Your task to perform on an android device: make emails show in primary in the gmail app Image 0: 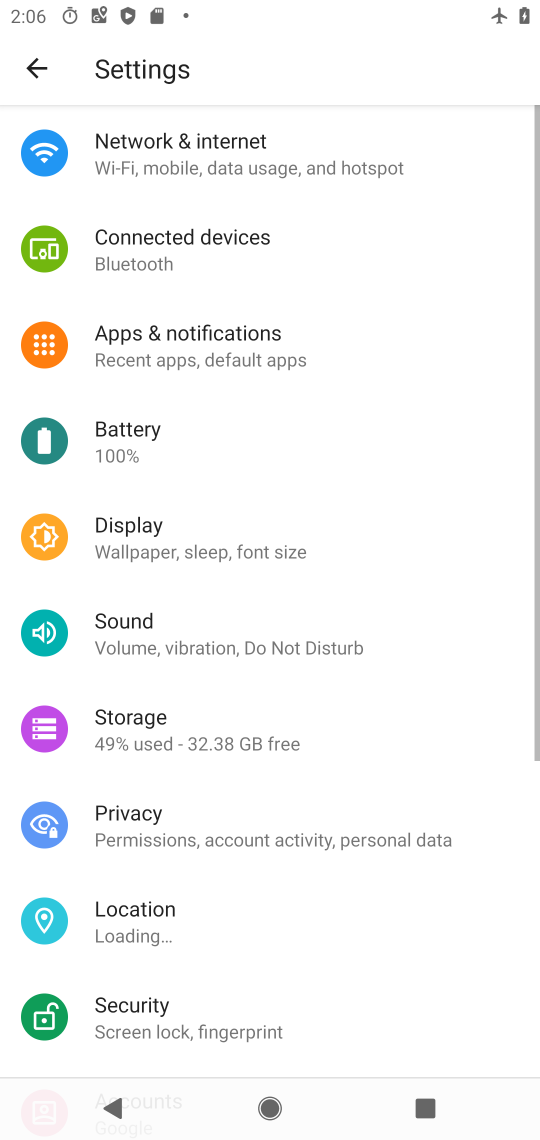
Step 0: press home button
Your task to perform on an android device: make emails show in primary in the gmail app Image 1: 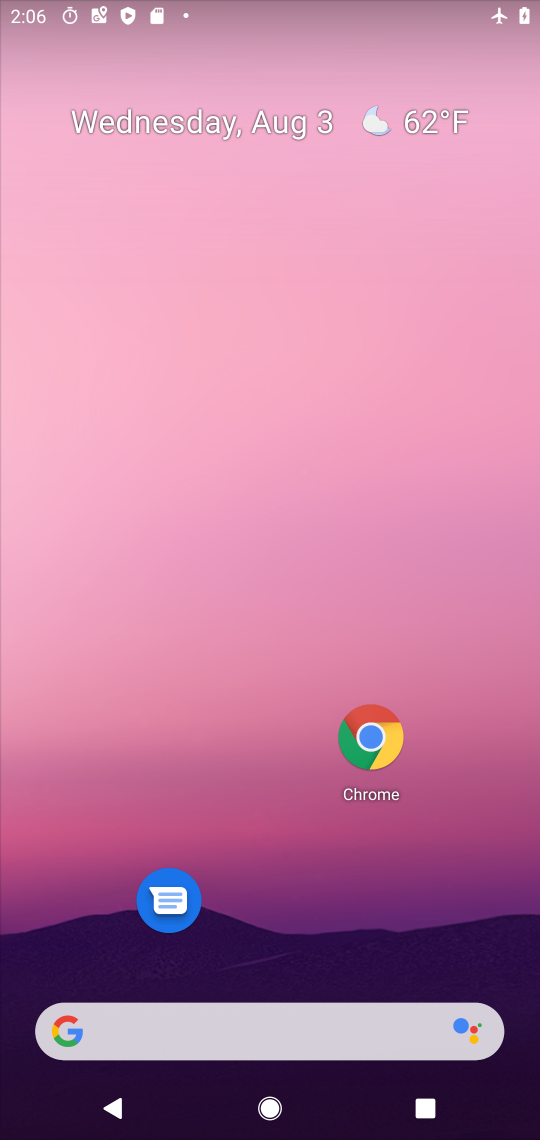
Step 1: drag from (273, 886) to (290, 57)
Your task to perform on an android device: make emails show in primary in the gmail app Image 2: 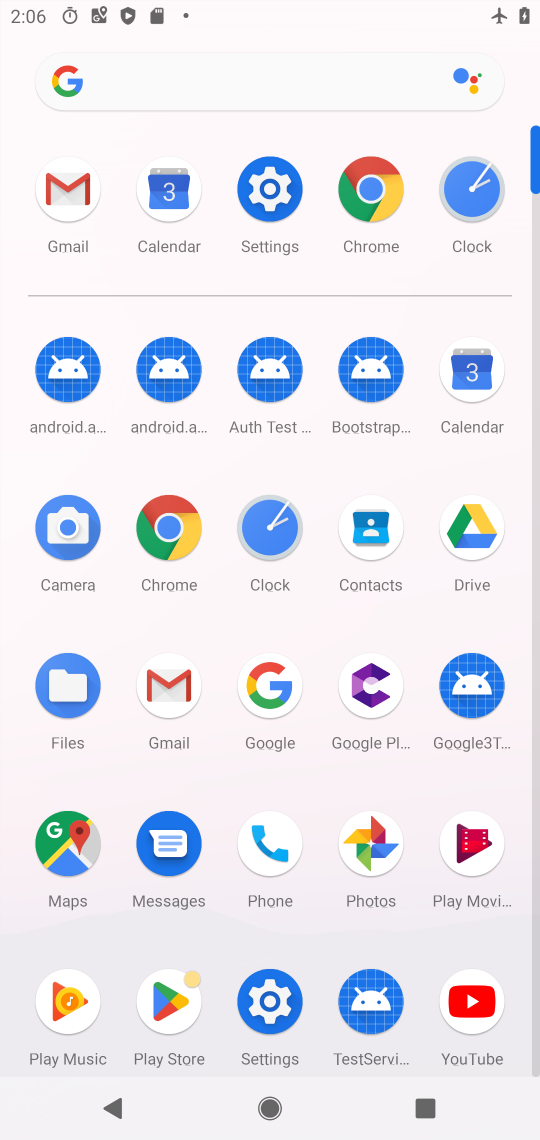
Step 2: click (166, 696)
Your task to perform on an android device: make emails show in primary in the gmail app Image 3: 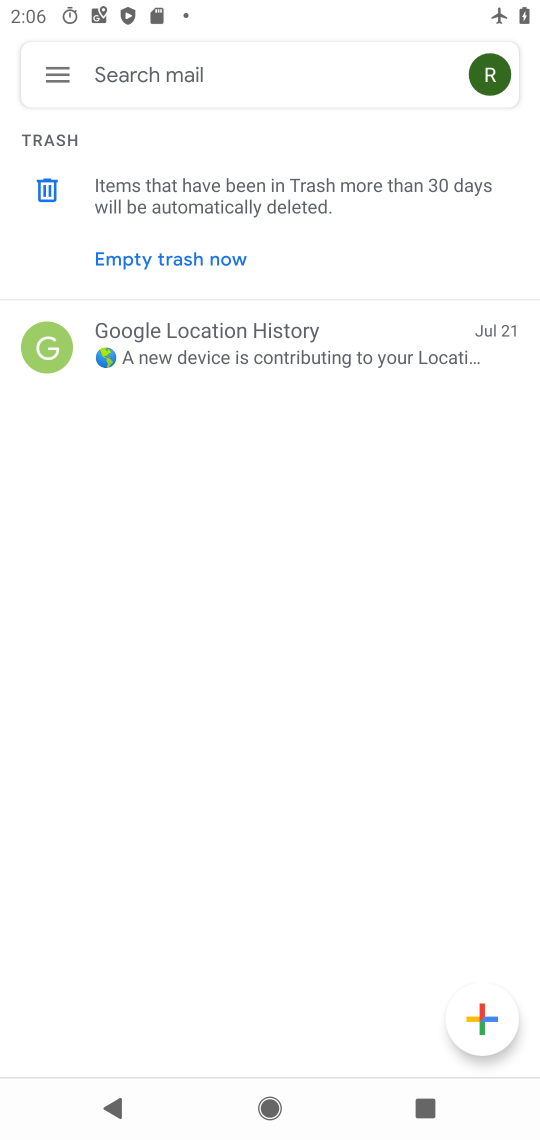
Step 3: click (58, 57)
Your task to perform on an android device: make emails show in primary in the gmail app Image 4: 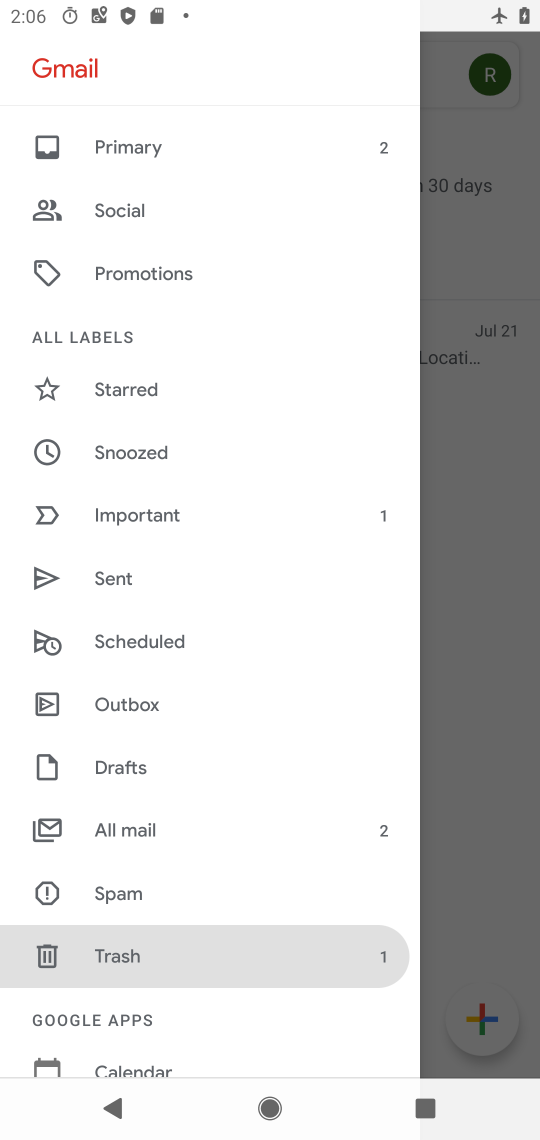
Step 4: drag from (244, 956) to (291, 341)
Your task to perform on an android device: make emails show in primary in the gmail app Image 5: 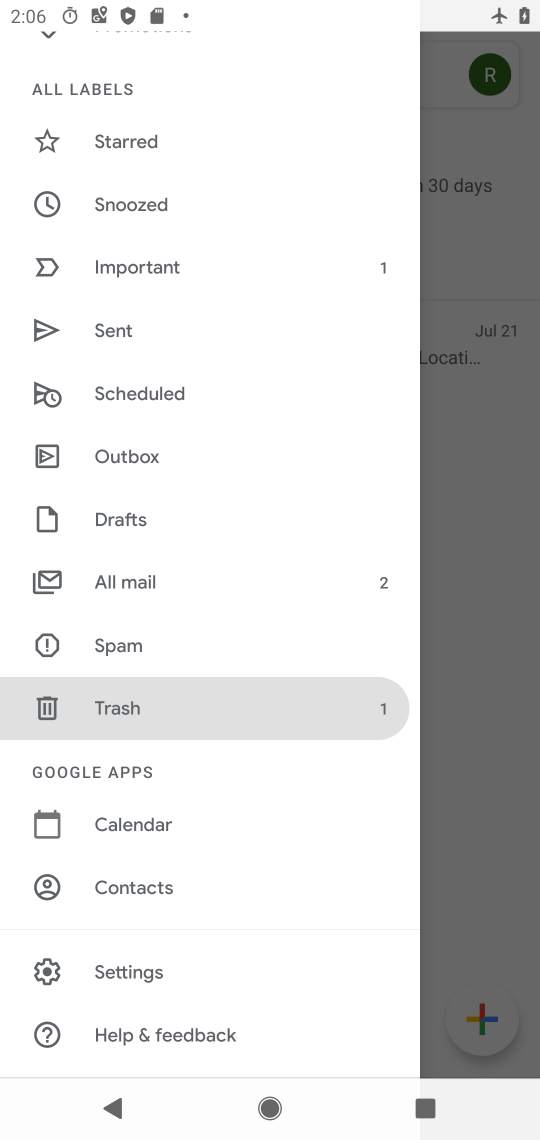
Step 5: click (127, 979)
Your task to perform on an android device: make emails show in primary in the gmail app Image 6: 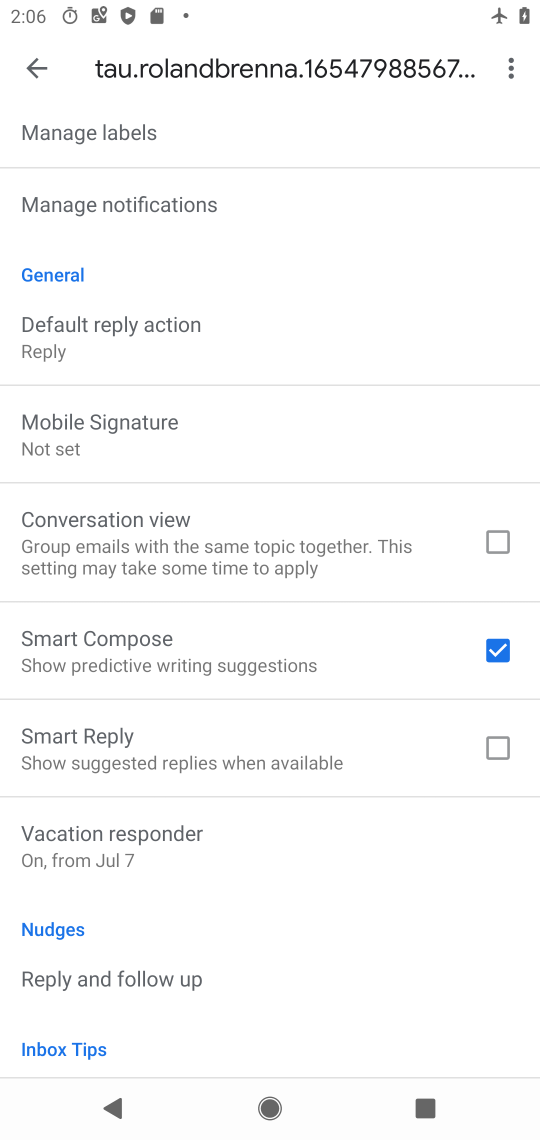
Step 6: drag from (331, 328) to (295, 867)
Your task to perform on an android device: make emails show in primary in the gmail app Image 7: 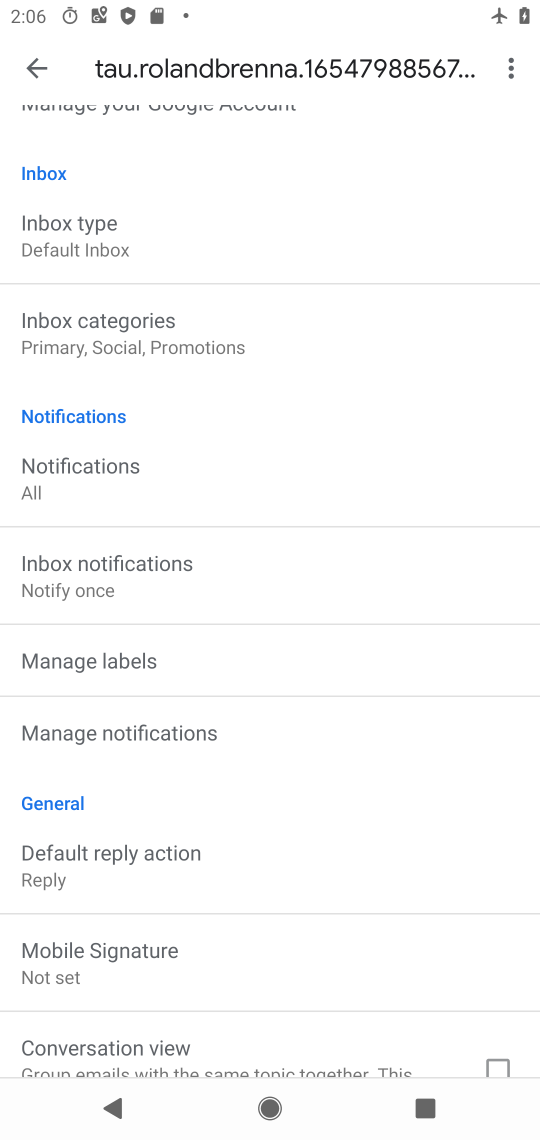
Step 7: drag from (215, 206) to (213, 718)
Your task to perform on an android device: make emails show in primary in the gmail app Image 8: 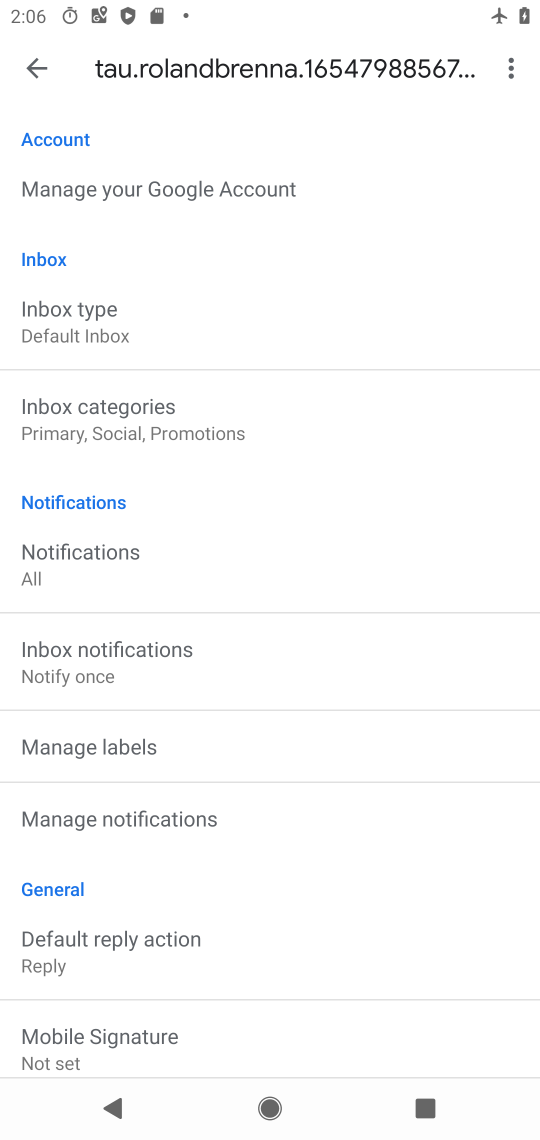
Step 8: click (128, 435)
Your task to perform on an android device: make emails show in primary in the gmail app Image 9: 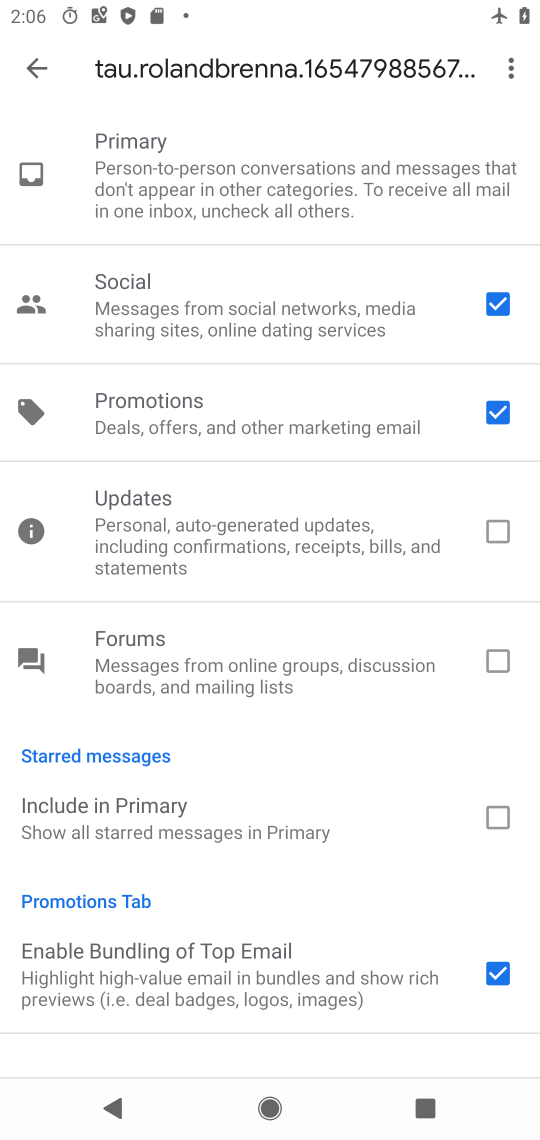
Step 9: task complete